Your task to perform on an android device: Search for rayovac triple a on target, select the first entry, add it to the cart, then select checkout. Image 0: 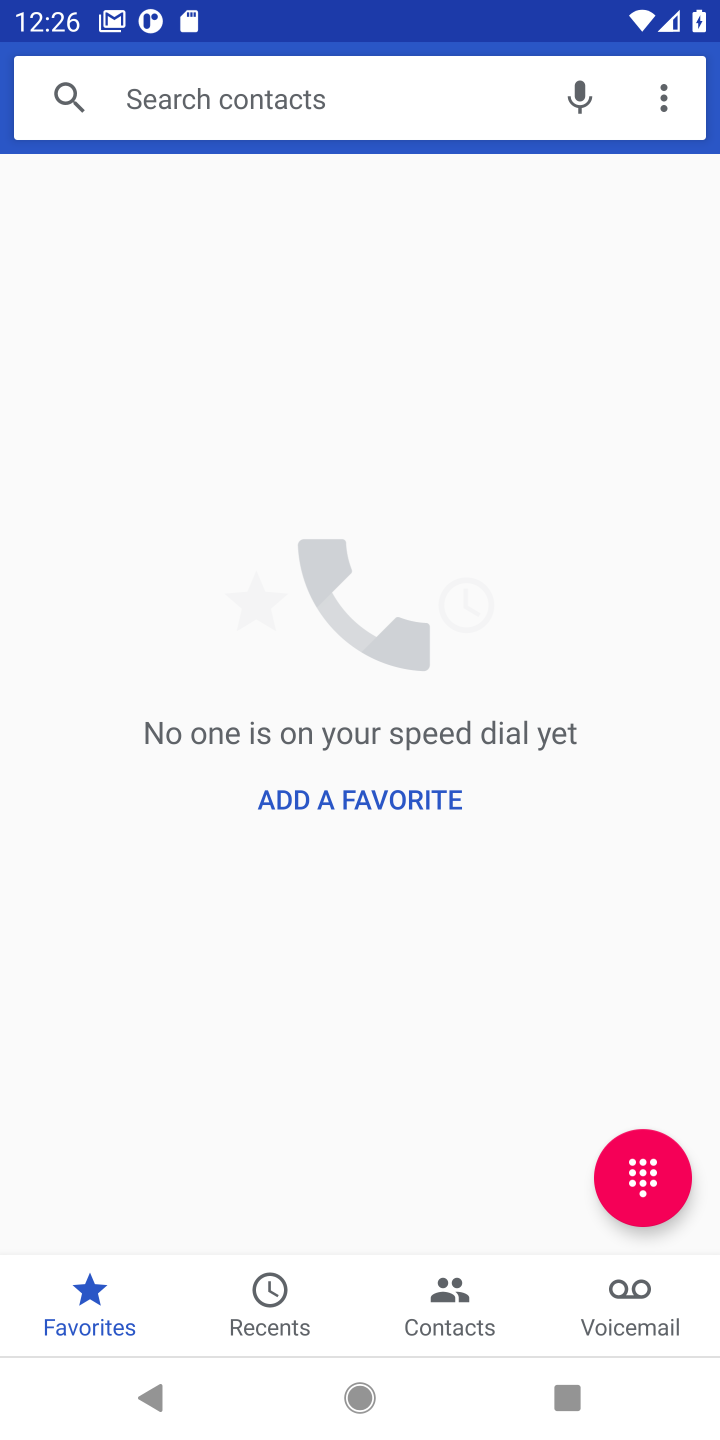
Step 0: press home button
Your task to perform on an android device: Search for rayovac triple a on target, select the first entry, add it to the cart, then select checkout. Image 1: 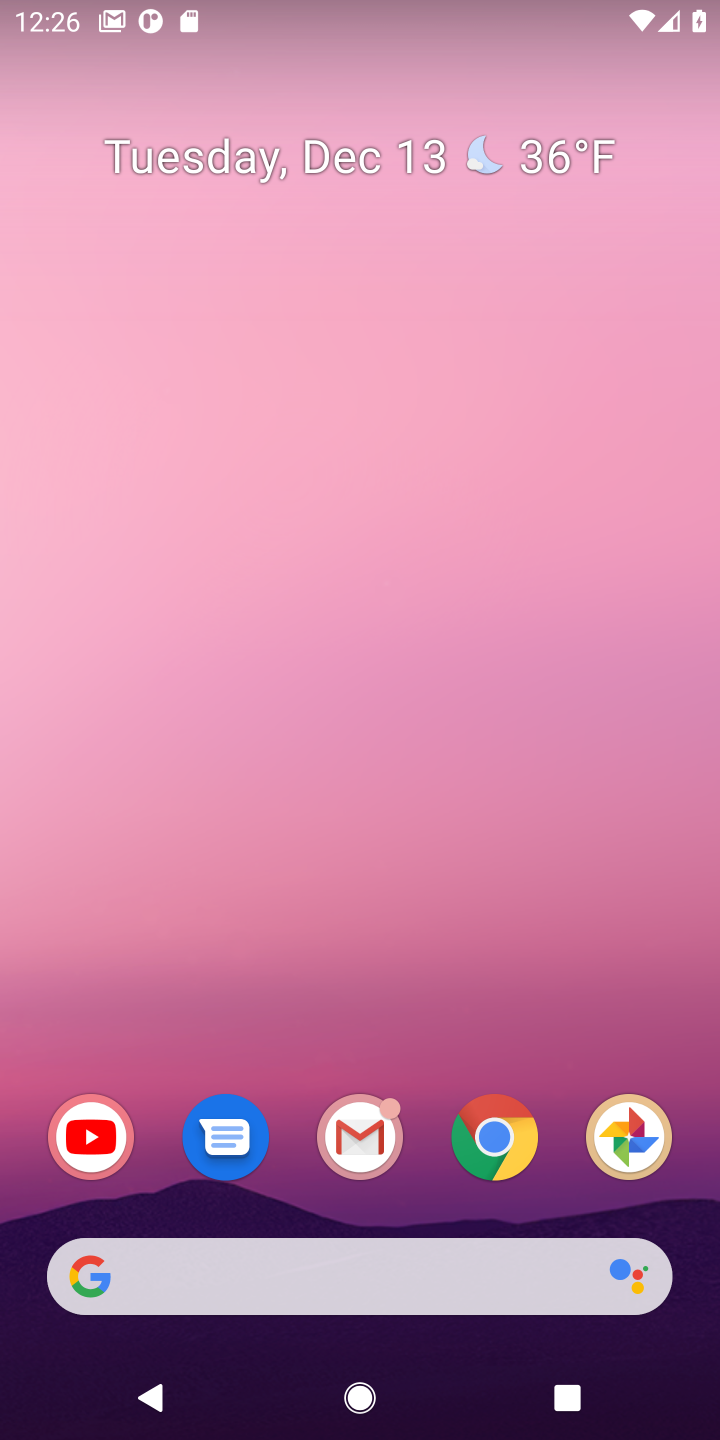
Step 1: click (367, 1273)
Your task to perform on an android device: Search for rayovac triple a on target, select the first entry, add it to the cart, then select checkout. Image 2: 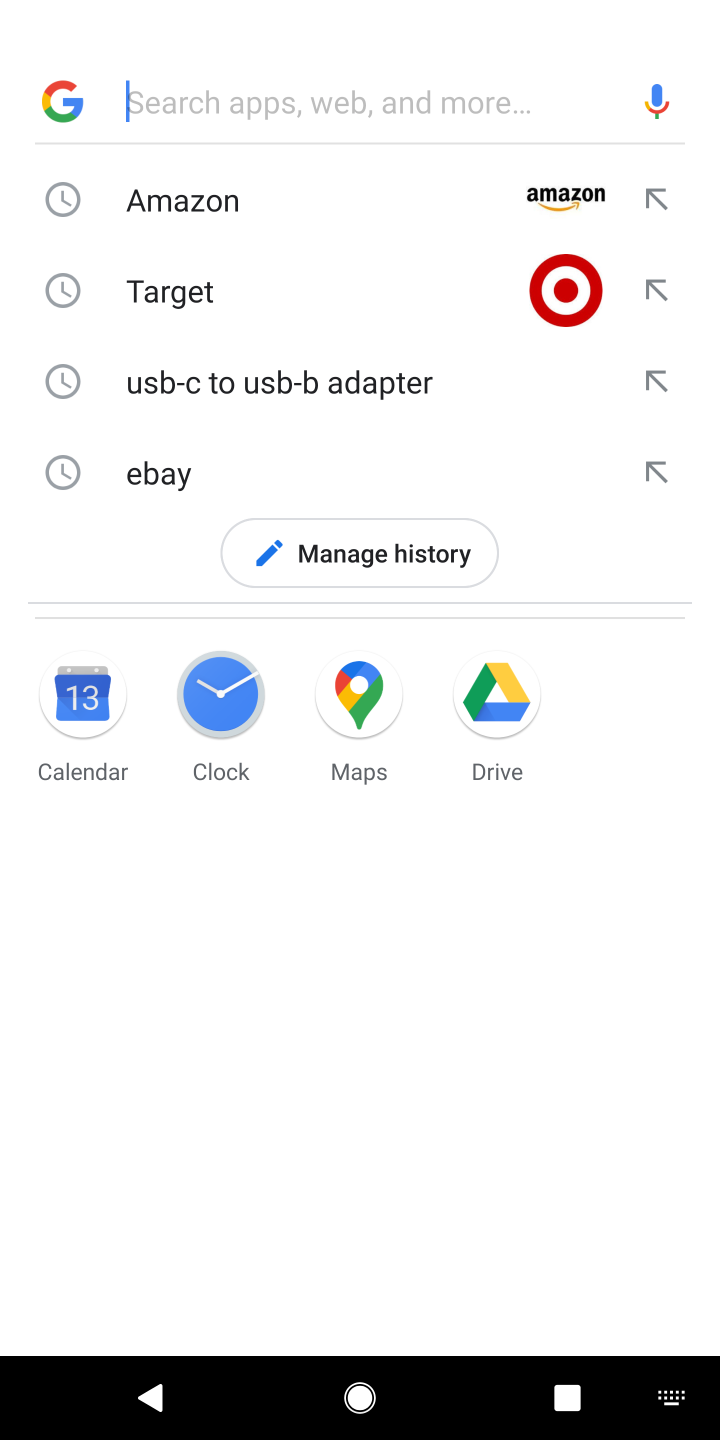
Step 2: type "rarget"
Your task to perform on an android device: Search for rayovac triple a on target, select the first entry, add it to the cart, then select checkout. Image 3: 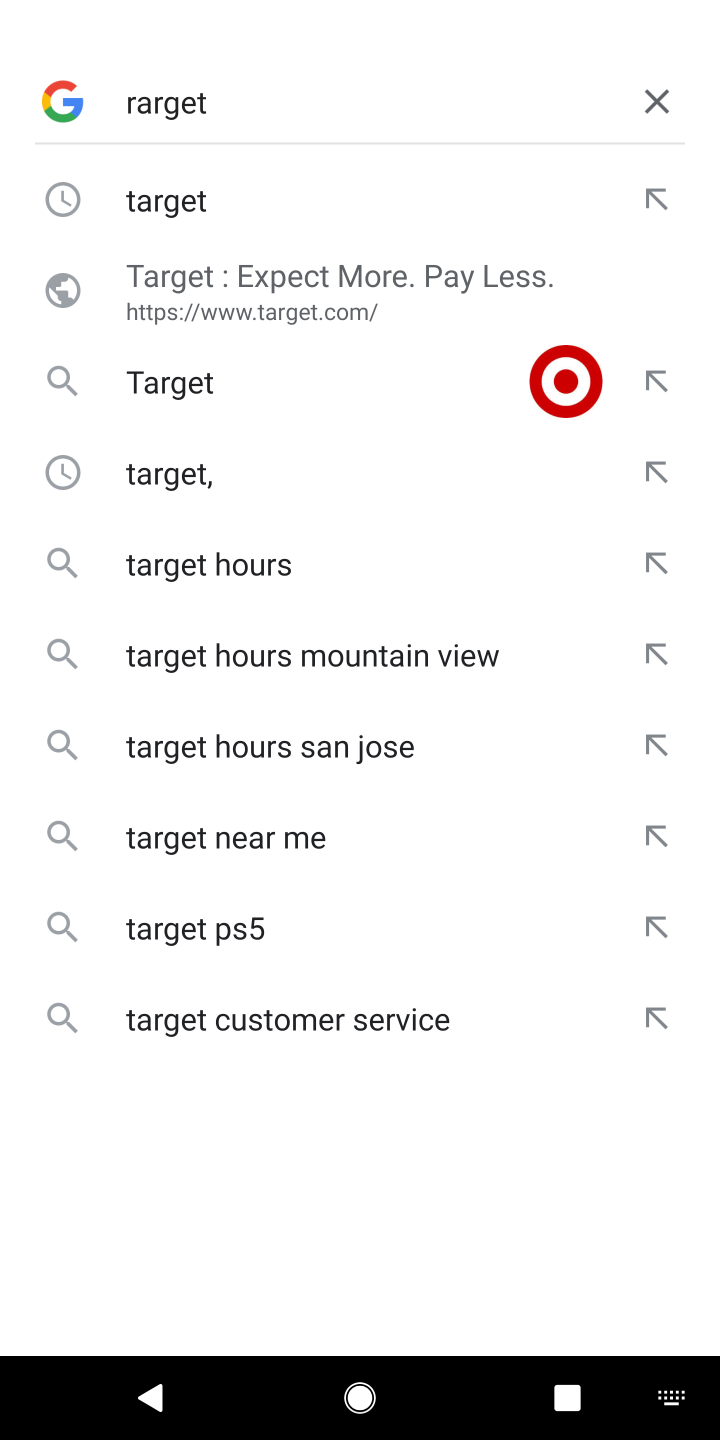
Step 3: click (143, 235)
Your task to perform on an android device: Search for rayovac triple a on target, select the first entry, add it to the cart, then select checkout. Image 4: 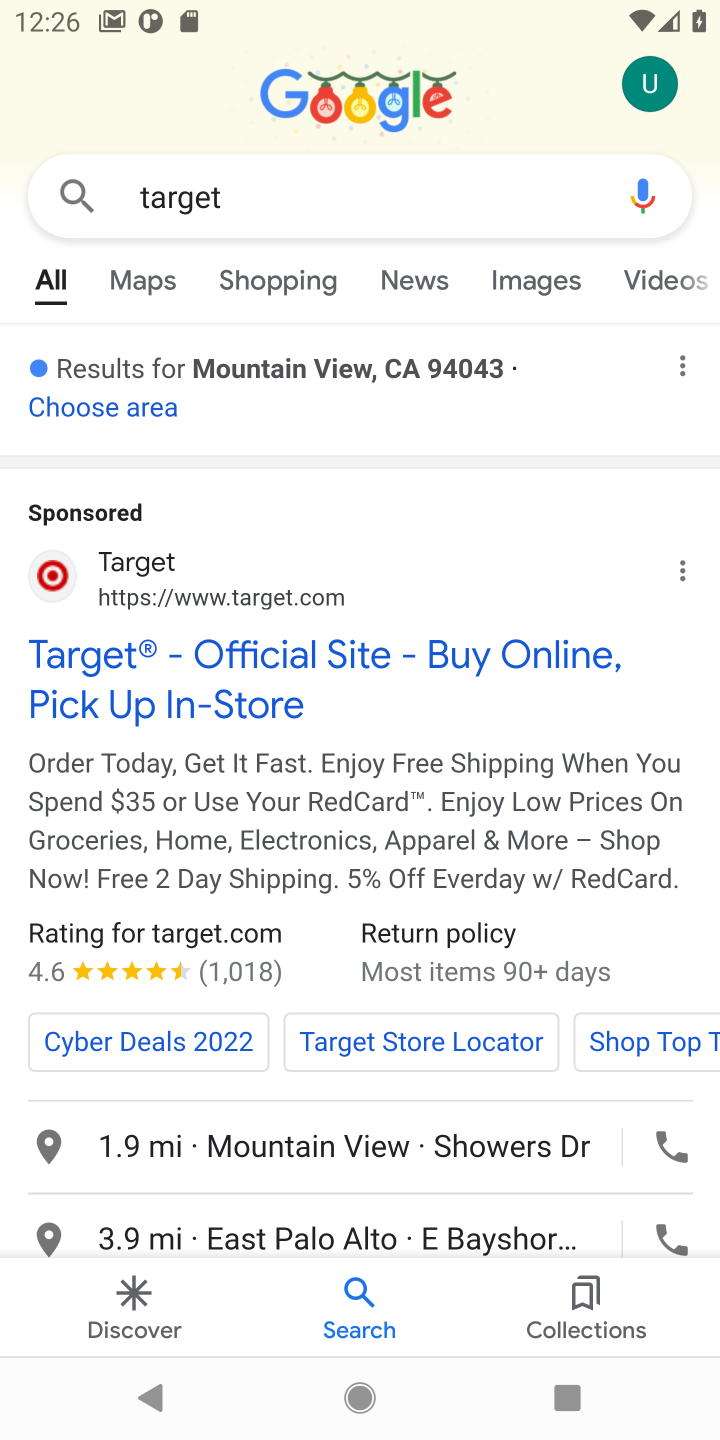
Step 4: click (180, 696)
Your task to perform on an android device: Search for rayovac triple a on target, select the first entry, add it to the cart, then select checkout. Image 5: 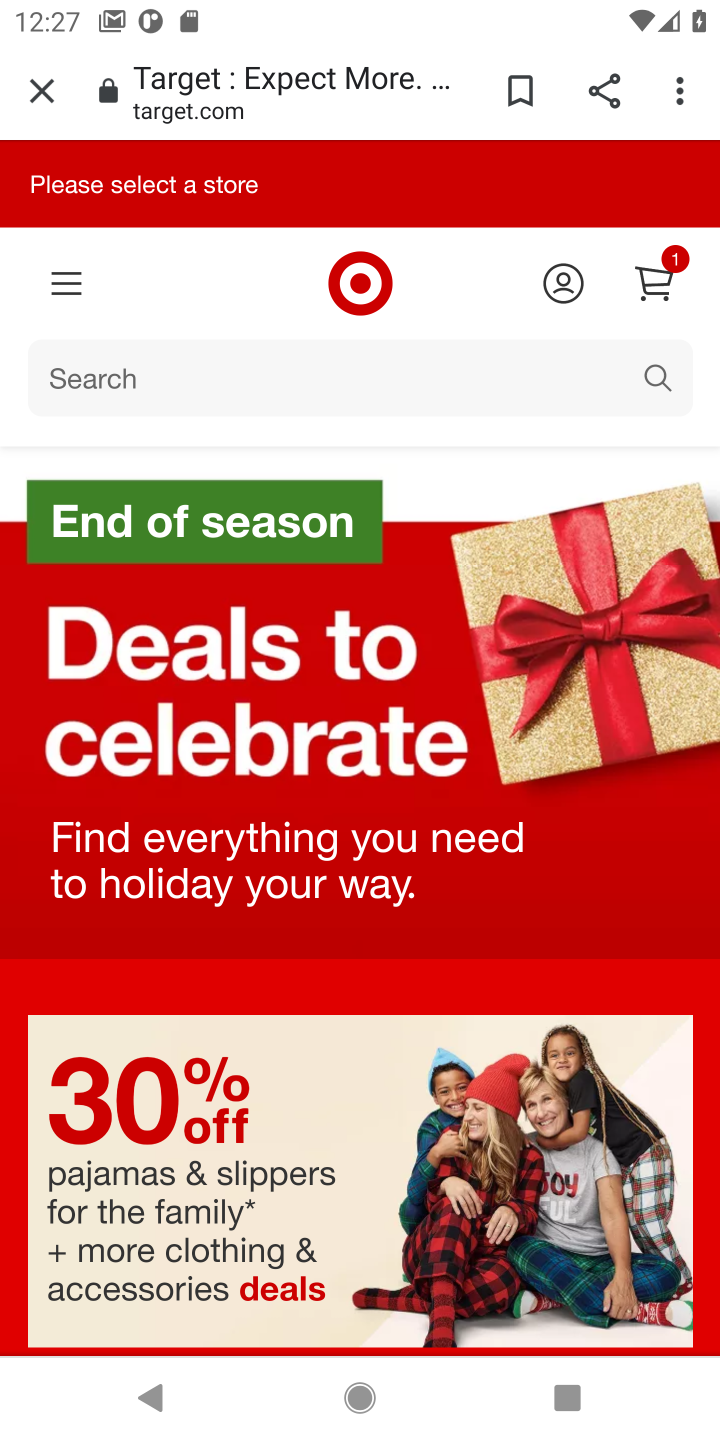
Step 5: click (140, 363)
Your task to perform on an android device: Search for rayovac triple a on target, select the first entry, add it to the cart, then select checkout. Image 6: 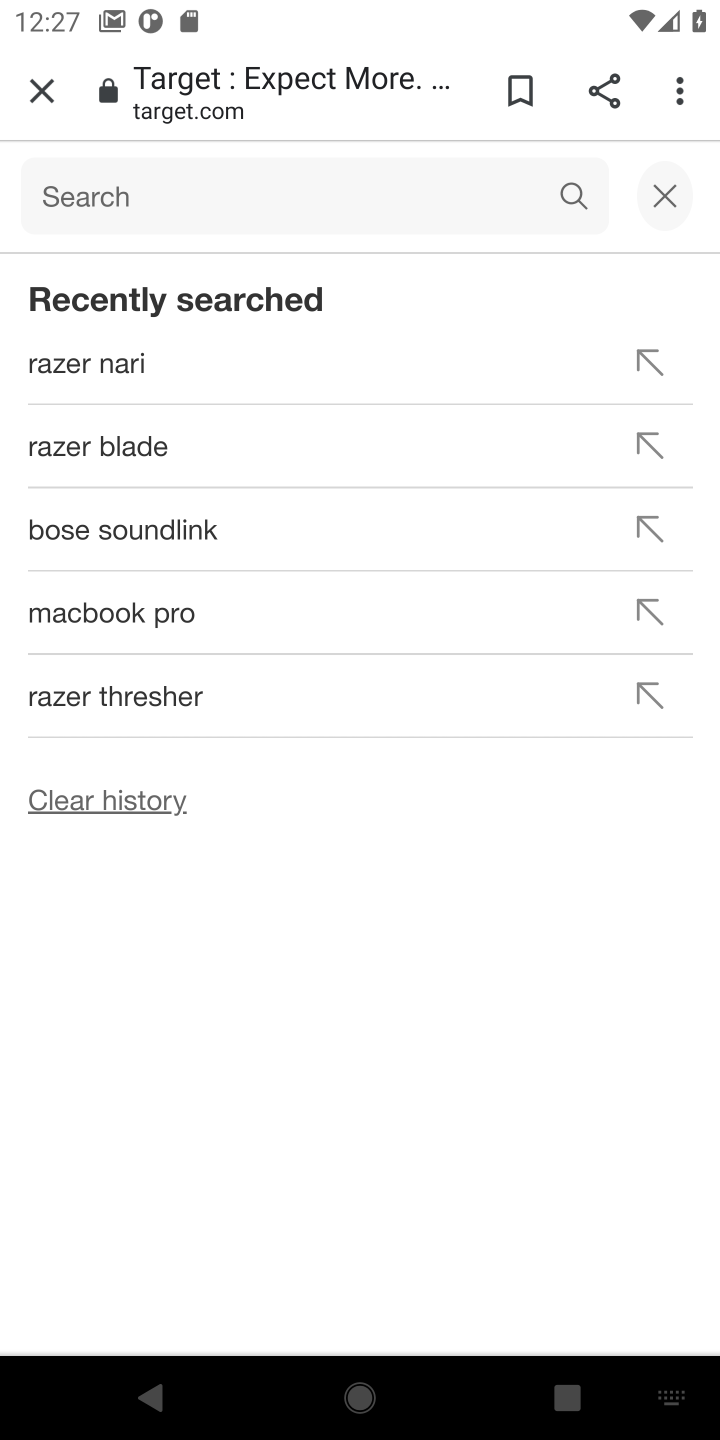
Step 6: type "rayvovac"
Your task to perform on an android device: Search for rayovac triple a on target, select the first entry, add it to the cart, then select checkout. Image 7: 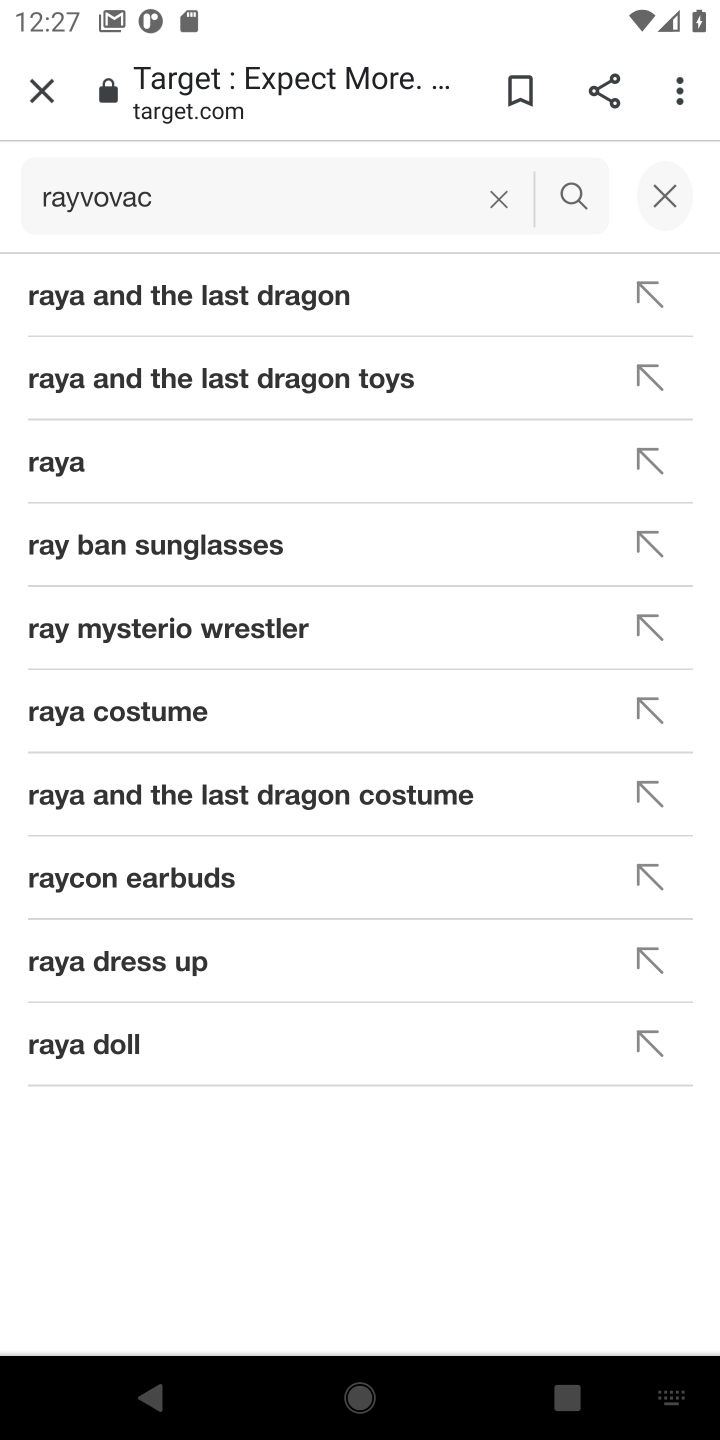
Step 7: type "triple a"
Your task to perform on an android device: Search for rayovac triple a on target, select the first entry, add it to the cart, then select checkout. Image 8: 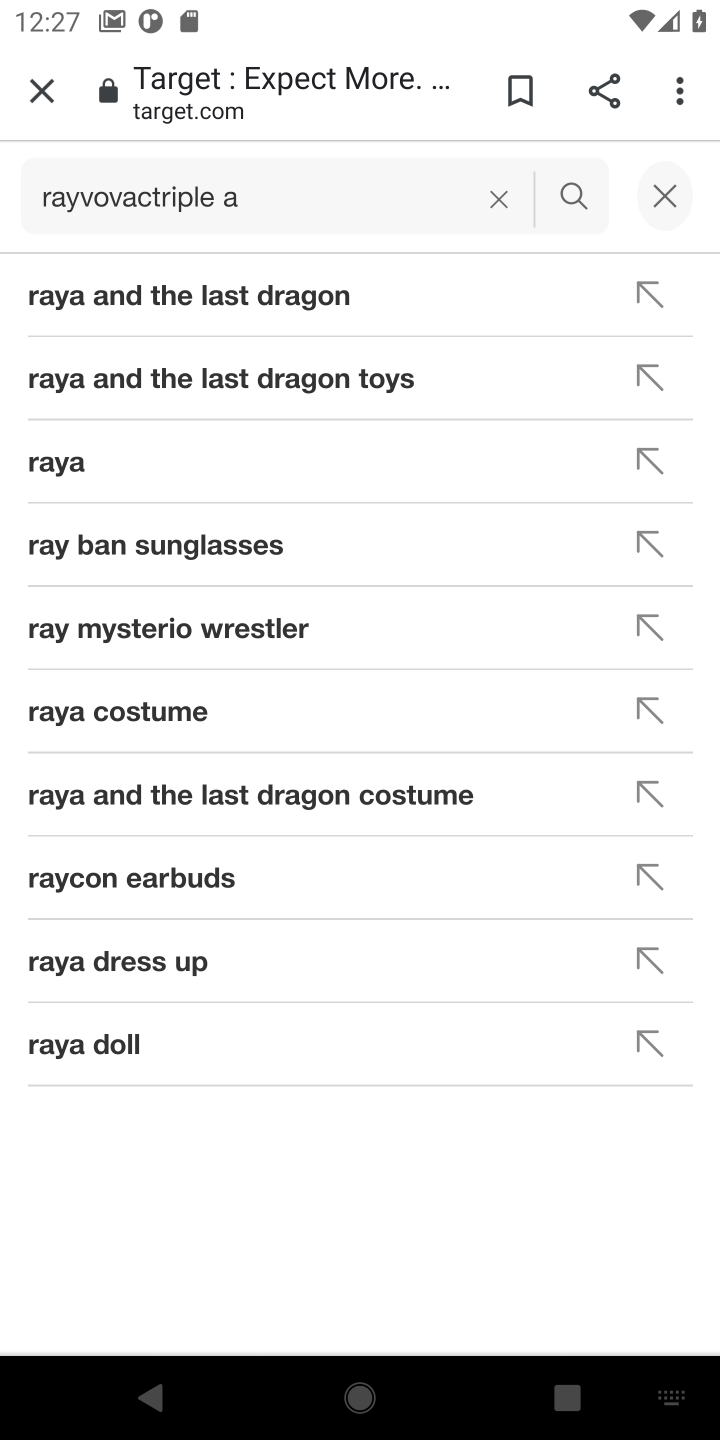
Step 8: click (587, 205)
Your task to perform on an android device: Search for rayovac triple a on target, select the first entry, add it to the cart, then select checkout. Image 9: 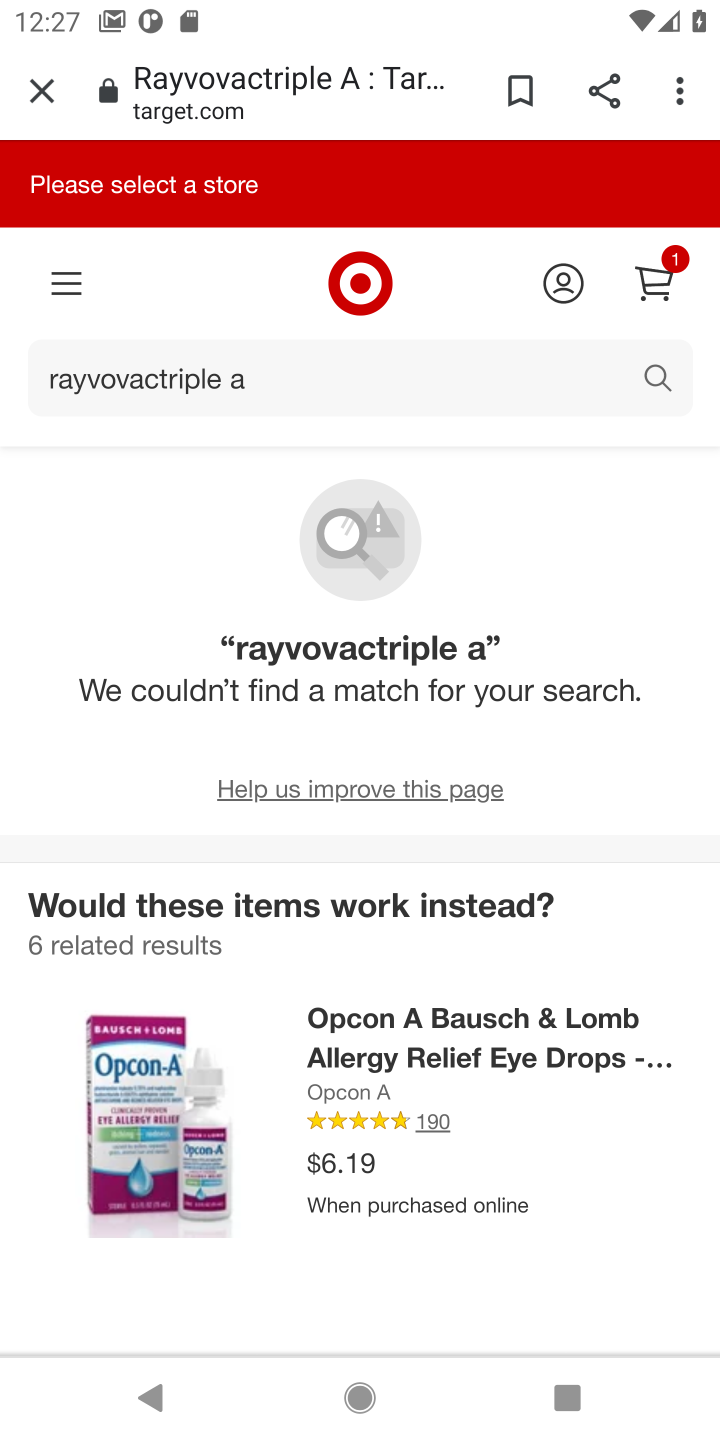
Step 9: task complete